Your task to perform on an android device: Go to Google maps Image 0: 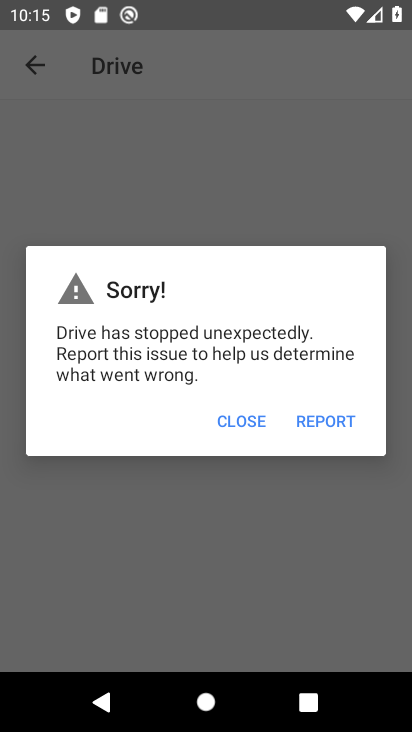
Step 0: press home button
Your task to perform on an android device: Go to Google maps Image 1: 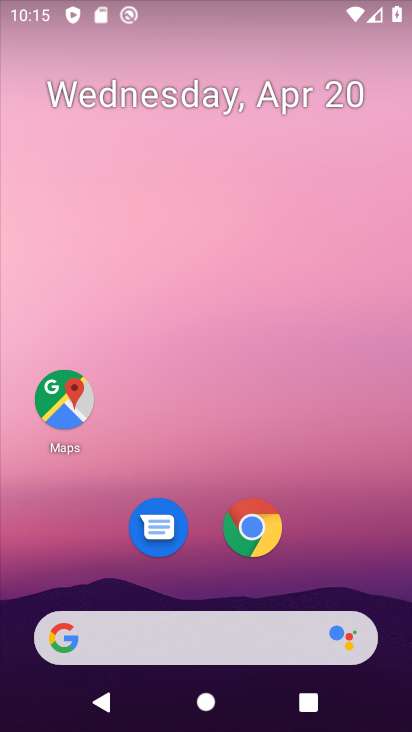
Step 1: click (61, 389)
Your task to perform on an android device: Go to Google maps Image 2: 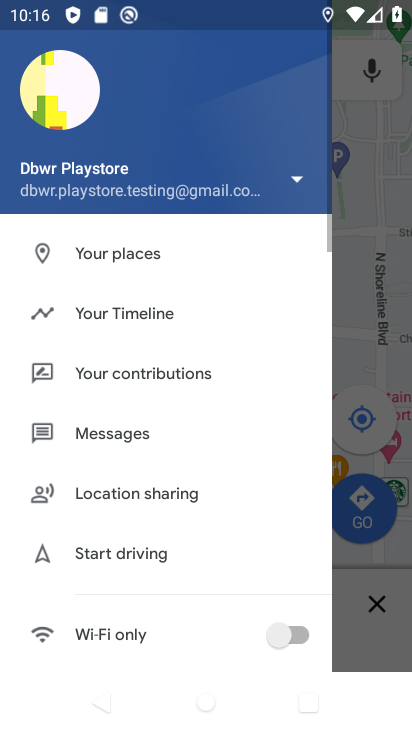
Step 2: task complete